Your task to perform on an android device: turn on wifi Image 0: 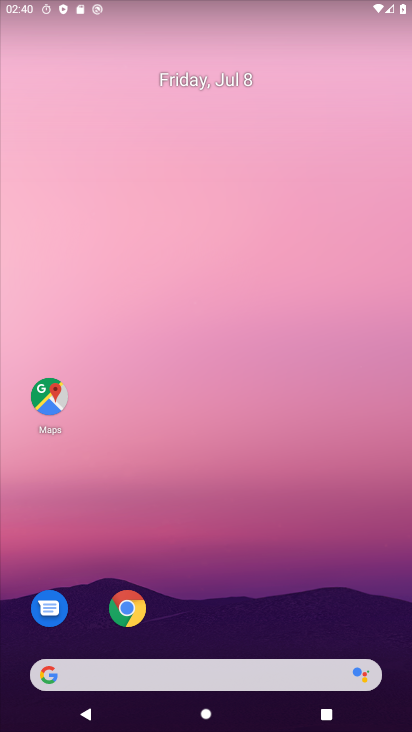
Step 0: drag from (210, 617) to (218, 88)
Your task to perform on an android device: turn on wifi Image 1: 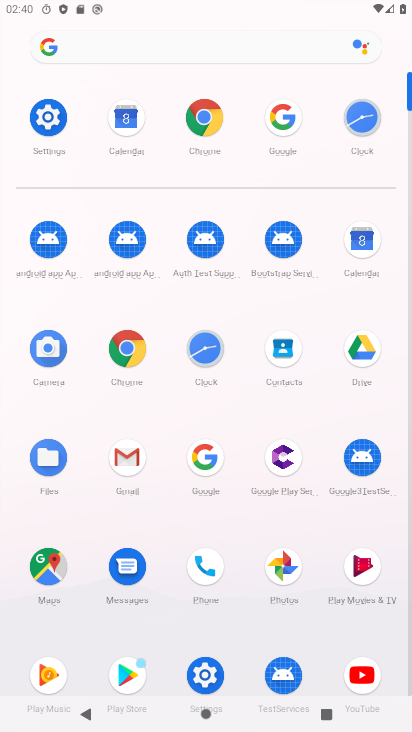
Step 1: click (49, 115)
Your task to perform on an android device: turn on wifi Image 2: 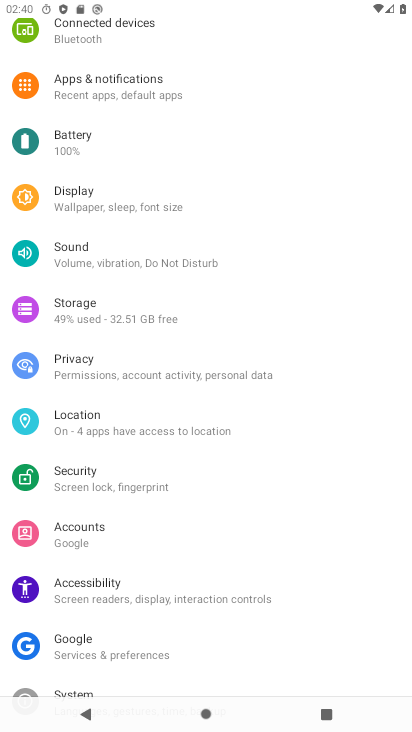
Step 2: drag from (162, 93) to (258, 622)
Your task to perform on an android device: turn on wifi Image 3: 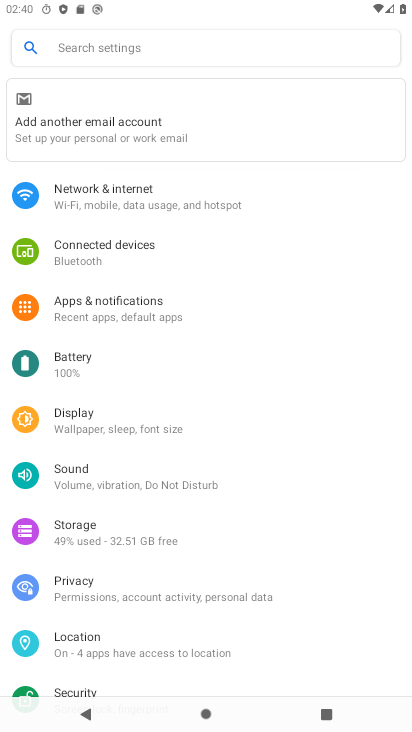
Step 3: click (131, 183)
Your task to perform on an android device: turn on wifi Image 4: 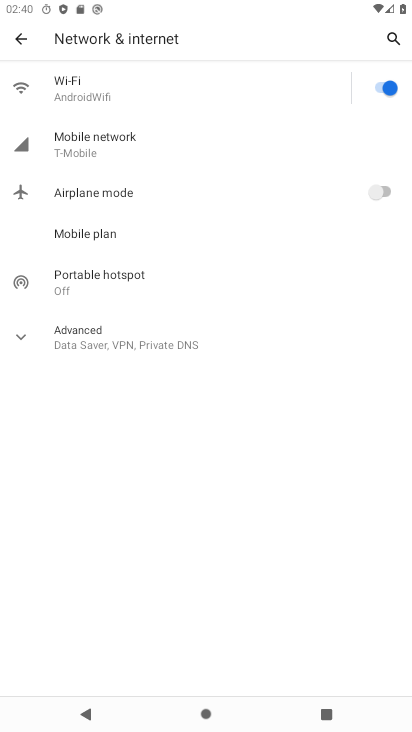
Step 4: task complete